Your task to perform on an android device: open a new tab in the chrome app Image 0: 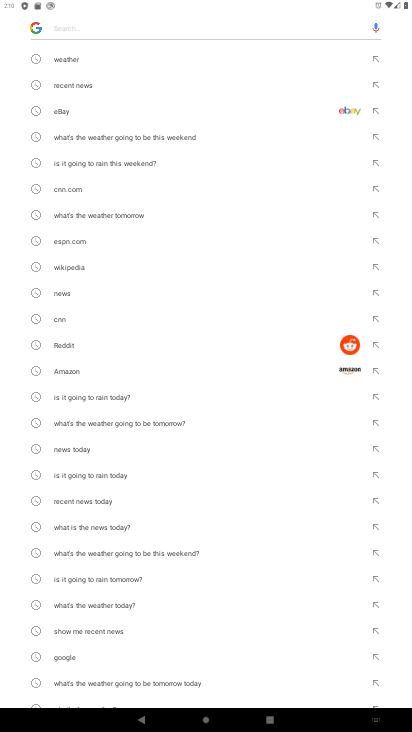
Step 0: press home button
Your task to perform on an android device: open a new tab in the chrome app Image 1: 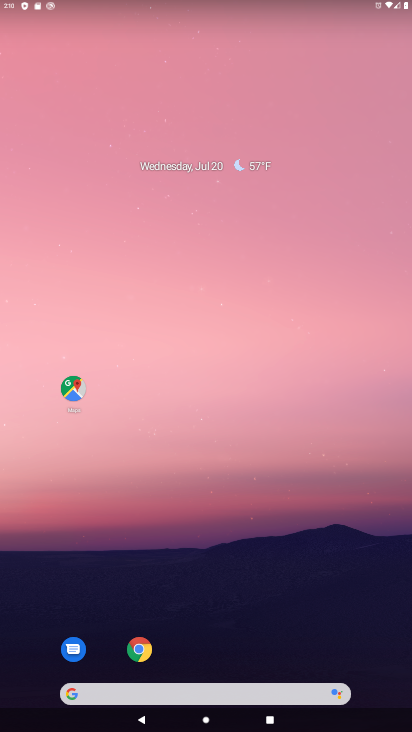
Step 1: click (138, 654)
Your task to perform on an android device: open a new tab in the chrome app Image 2: 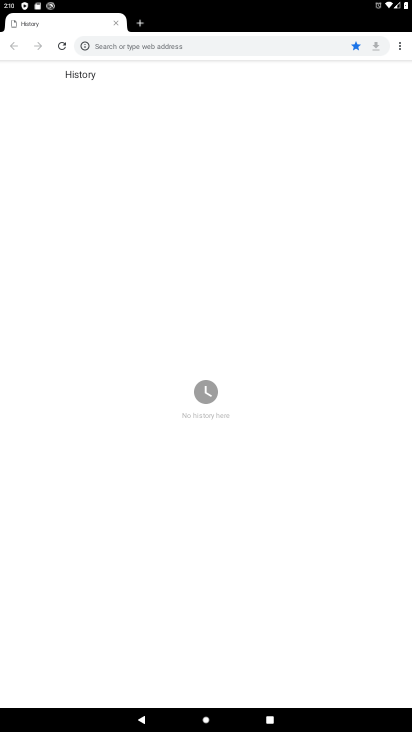
Step 2: click (142, 20)
Your task to perform on an android device: open a new tab in the chrome app Image 3: 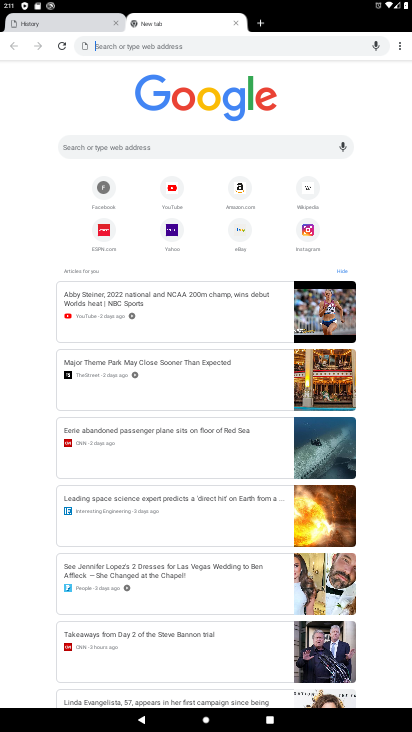
Step 3: task complete